Your task to perform on an android device: clear all cookies in the chrome app Image 0: 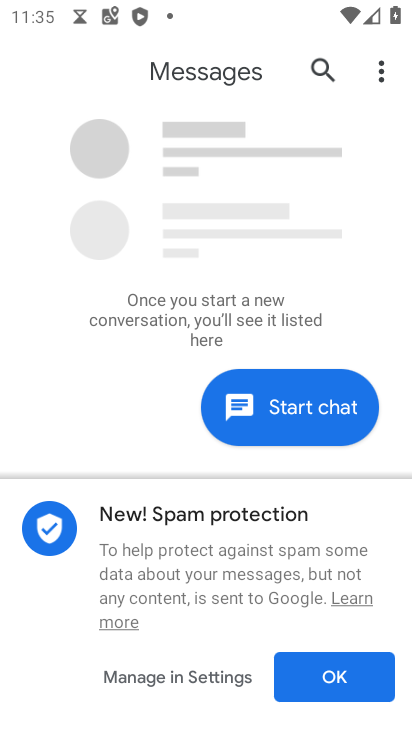
Step 0: press home button
Your task to perform on an android device: clear all cookies in the chrome app Image 1: 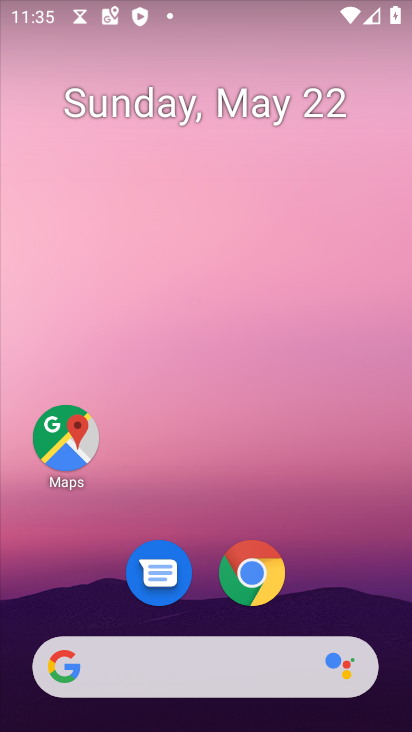
Step 1: click (246, 573)
Your task to perform on an android device: clear all cookies in the chrome app Image 2: 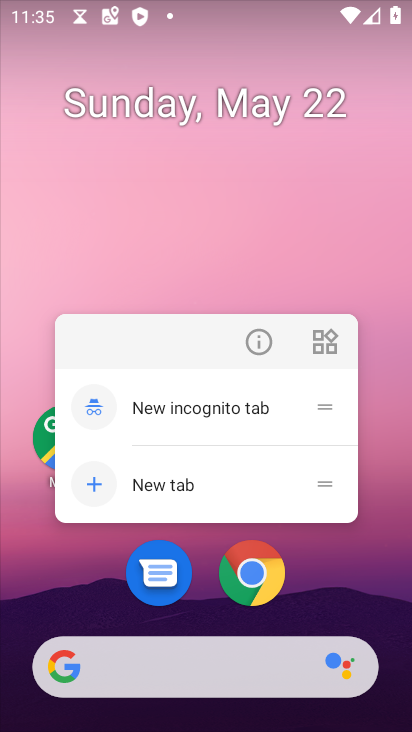
Step 2: click (252, 577)
Your task to perform on an android device: clear all cookies in the chrome app Image 3: 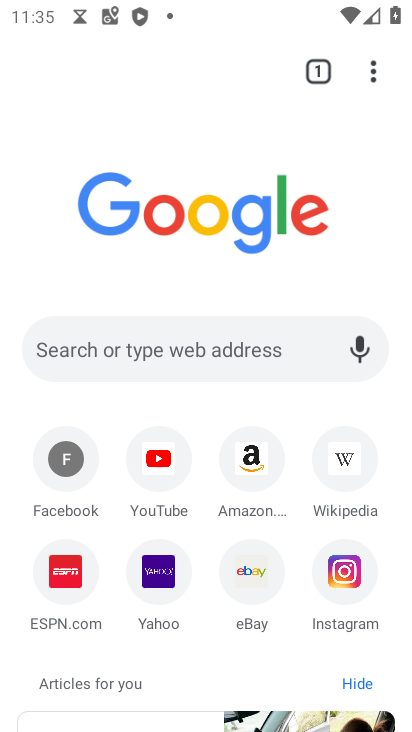
Step 3: drag from (373, 74) to (208, 613)
Your task to perform on an android device: clear all cookies in the chrome app Image 4: 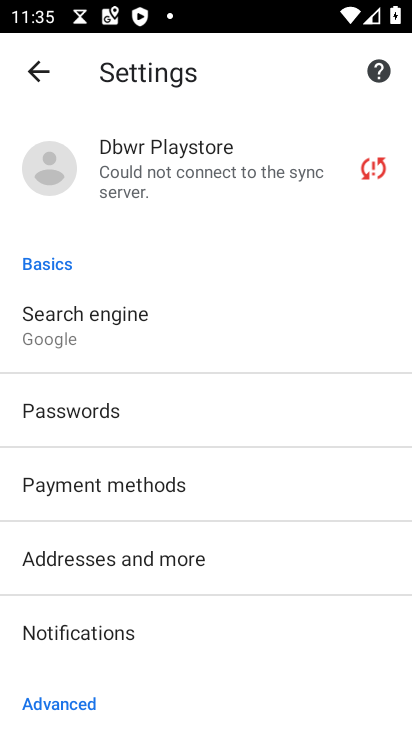
Step 4: drag from (173, 660) to (278, 334)
Your task to perform on an android device: clear all cookies in the chrome app Image 5: 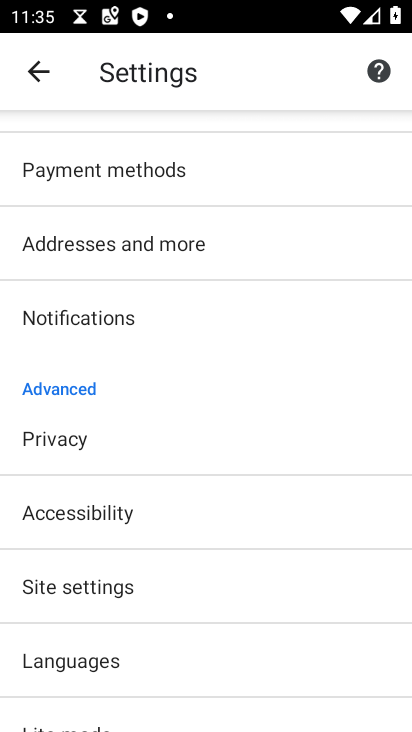
Step 5: click (83, 429)
Your task to perform on an android device: clear all cookies in the chrome app Image 6: 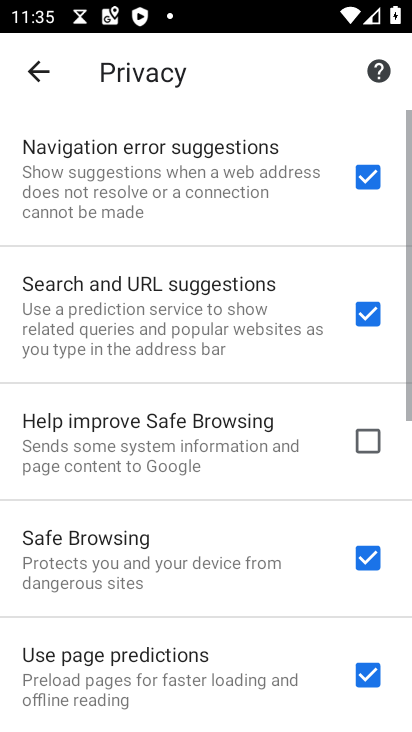
Step 6: drag from (248, 650) to (390, 149)
Your task to perform on an android device: clear all cookies in the chrome app Image 7: 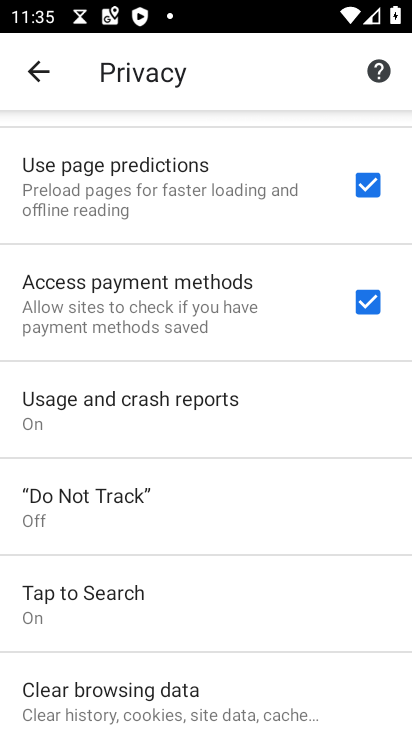
Step 7: drag from (184, 599) to (298, 219)
Your task to perform on an android device: clear all cookies in the chrome app Image 8: 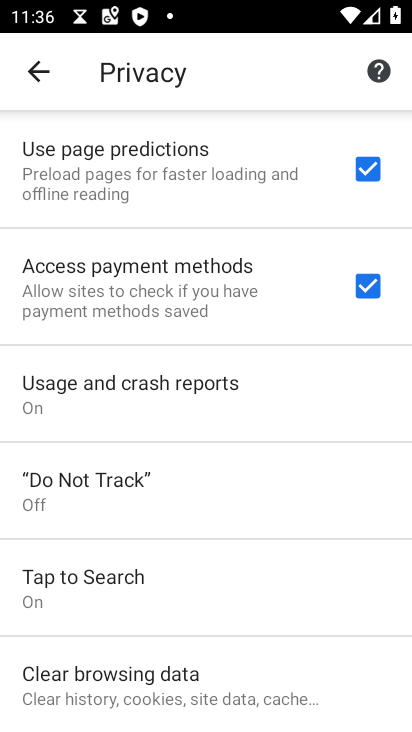
Step 8: click (120, 668)
Your task to perform on an android device: clear all cookies in the chrome app Image 9: 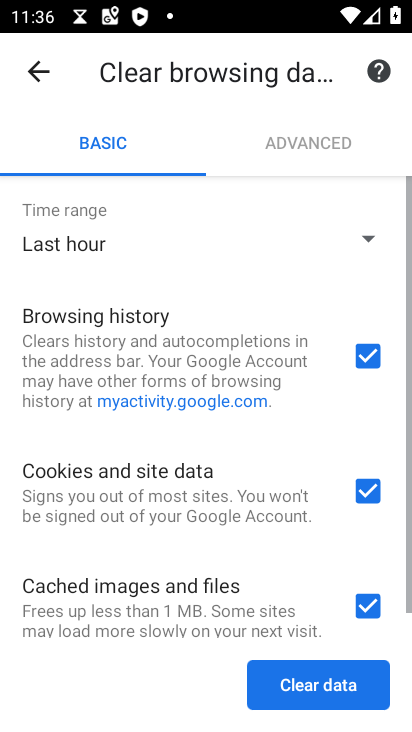
Step 9: click (365, 600)
Your task to perform on an android device: clear all cookies in the chrome app Image 10: 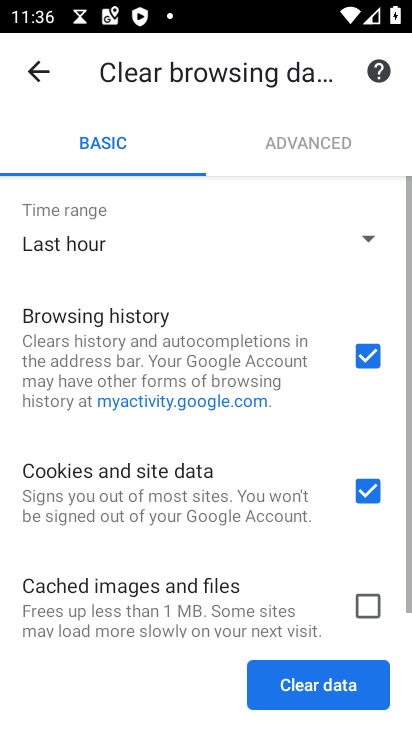
Step 10: click (377, 356)
Your task to perform on an android device: clear all cookies in the chrome app Image 11: 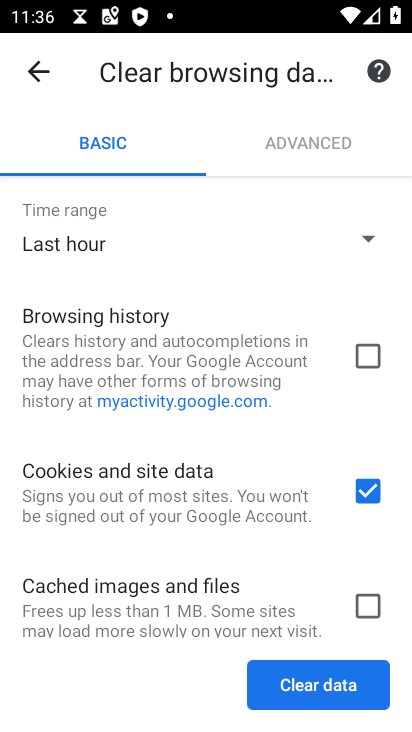
Step 11: click (327, 697)
Your task to perform on an android device: clear all cookies in the chrome app Image 12: 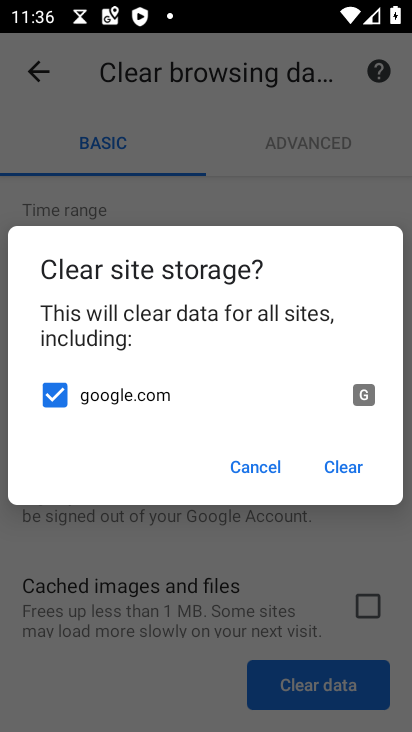
Step 12: click (350, 472)
Your task to perform on an android device: clear all cookies in the chrome app Image 13: 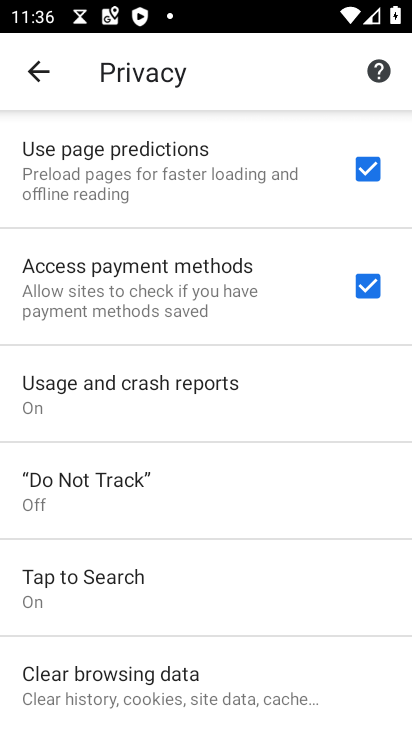
Step 13: task complete